Your task to perform on an android device: set the stopwatch Image 0: 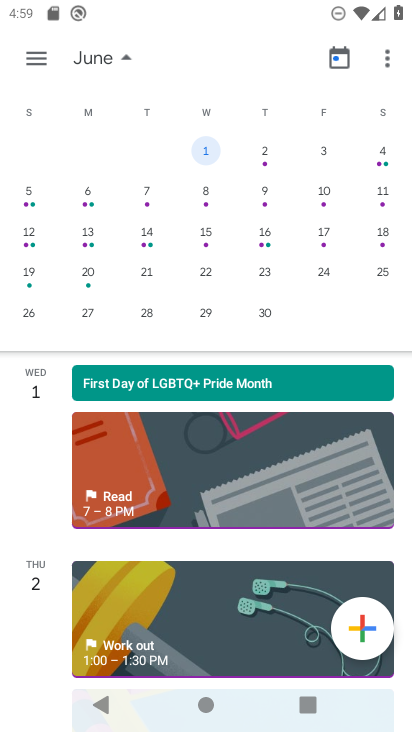
Step 0: press home button
Your task to perform on an android device: set the stopwatch Image 1: 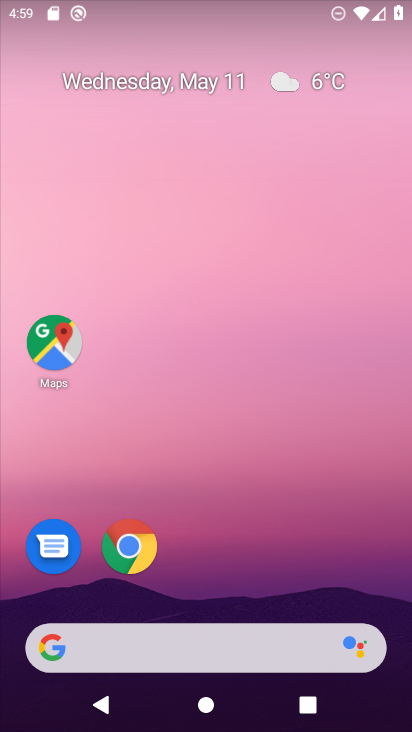
Step 1: drag from (258, 626) to (303, 316)
Your task to perform on an android device: set the stopwatch Image 2: 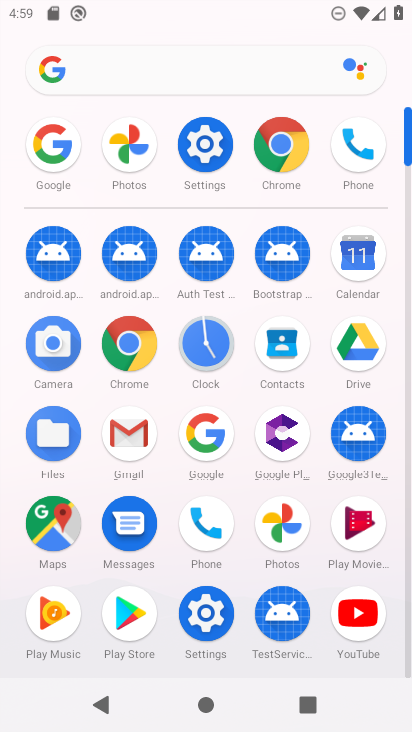
Step 2: click (212, 354)
Your task to perform on an android device: set the stopwatch Image 3: 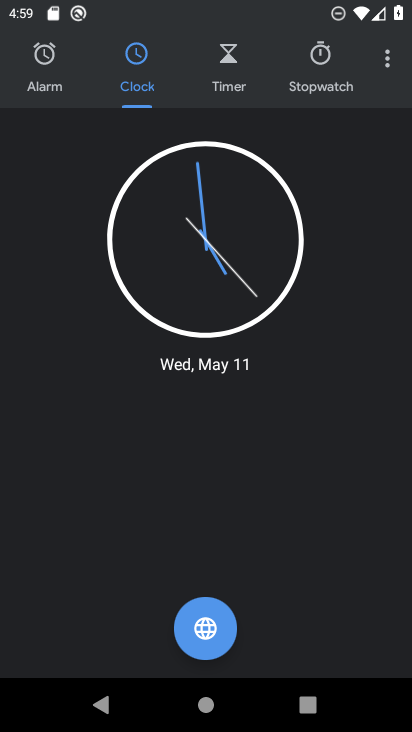
Step 3: click (323, 74)
Your task to perform on an android device: set the stopwatch Image 4: 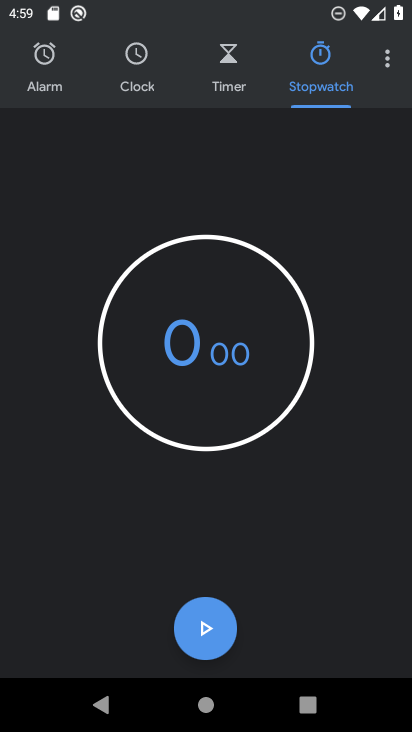
Step 4: click (211, 627)
Your task to perform on an android device: set the stopwatch Image 5: 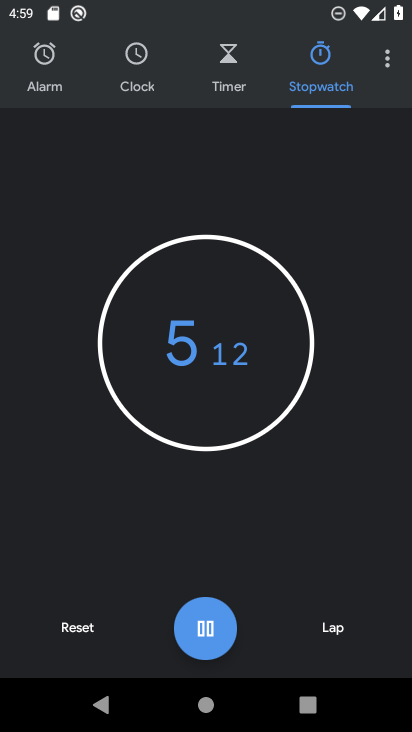
Step 5: click (203, 640)
Your task to perform on an android device: set the stopwatch Image 6: 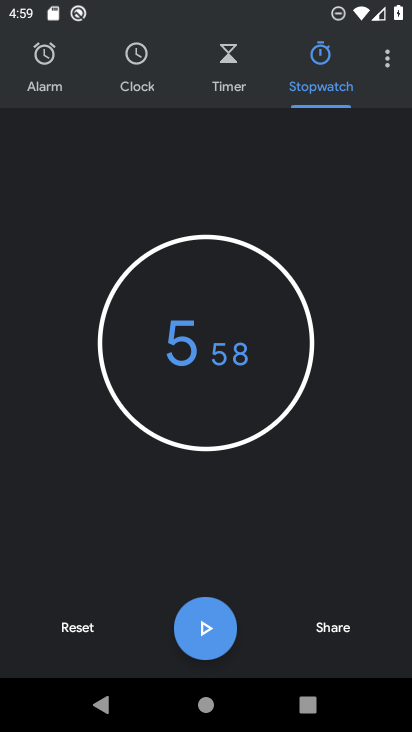
Step 6: task complete